Your task to perform on an android device: empty trash in google photos Image 0: 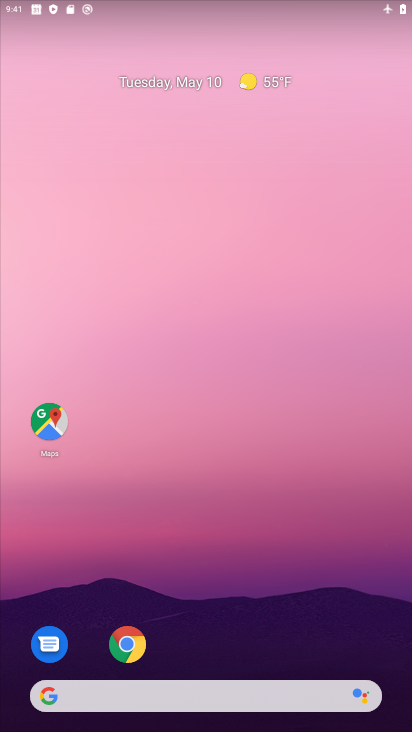
Step 0: drag from (296, 571) to (325, 201)
Your task to perform on an android device: empty trash in google photos Image 1: 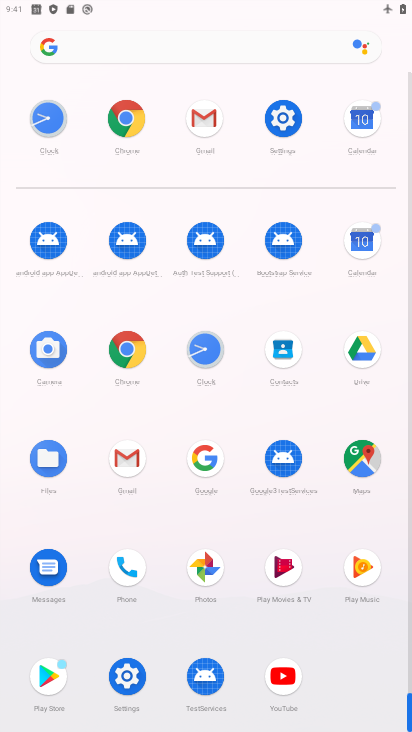
Step 1: click (214, 561)
Your task to perform on an android device: empty trash in google photos Image 2: 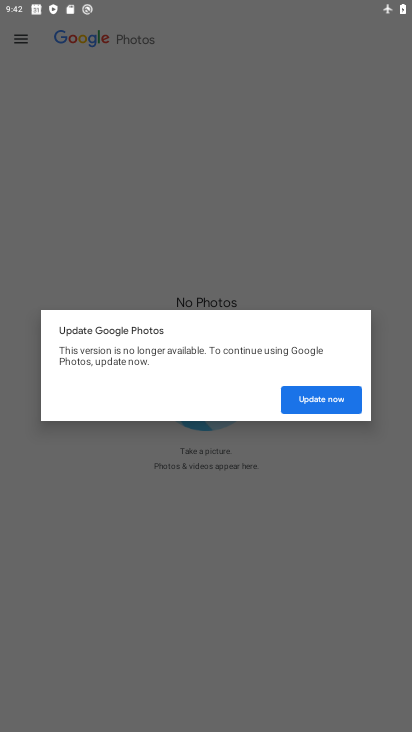
Step 2: task complete